Your task to perform on an android device: check battery use Image 0: 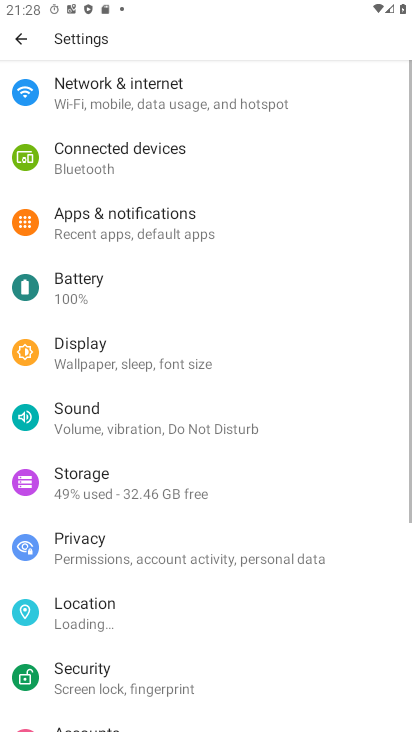
Step 0: drag from (314, 591) to (227, 273)
Your task to perform on an android device: check battery use Image 1: 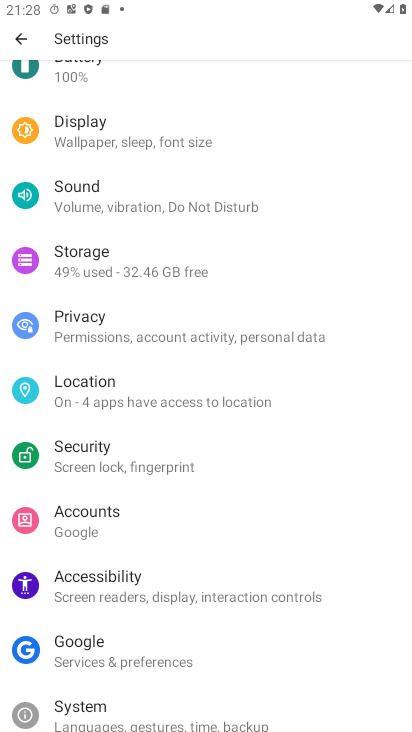
Step 1: drag from (129, 154) to (167, 505)
Your task to perform on an android device: check battery use Image 2: 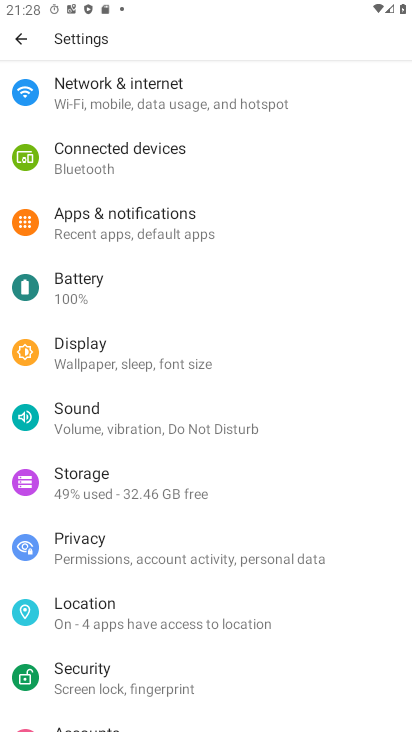
Step 2: click (64, 284)
Your task to perform on an android device: check battery use Image 3: 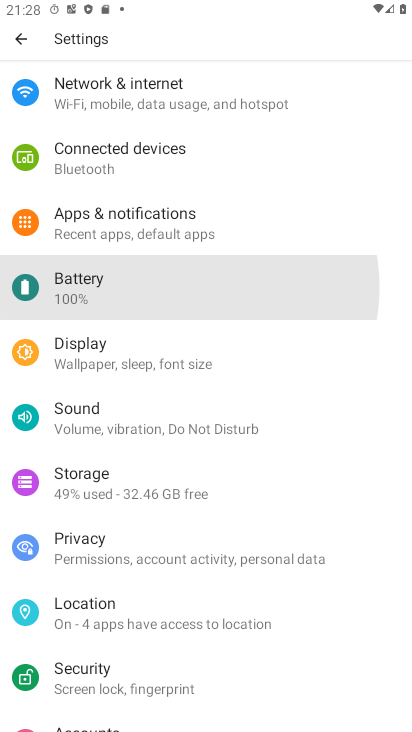
Step 3: click (66, 285)
Your task to perform on an android device: check battery use Image 4: 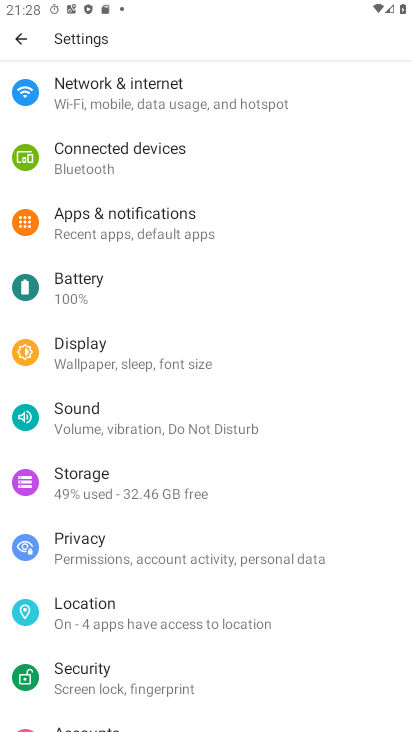
Step 4: click (68, 286)
Your task to perform on an android device: check battery use Image 5: 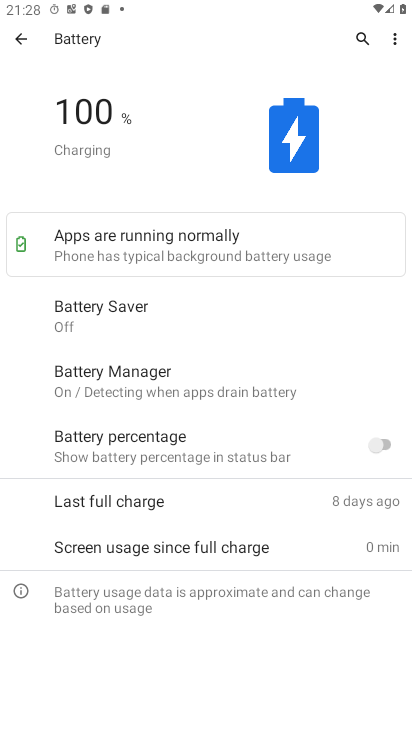
Step 5: task complete